Your task to perform on an android device: Open Wikipedia Image 0: 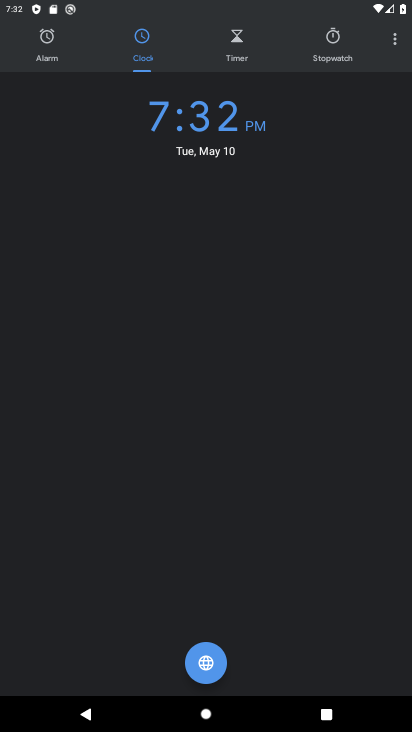
Step 0: press home button
Your task to perform on an android device: Open Wikipedia Image 1: 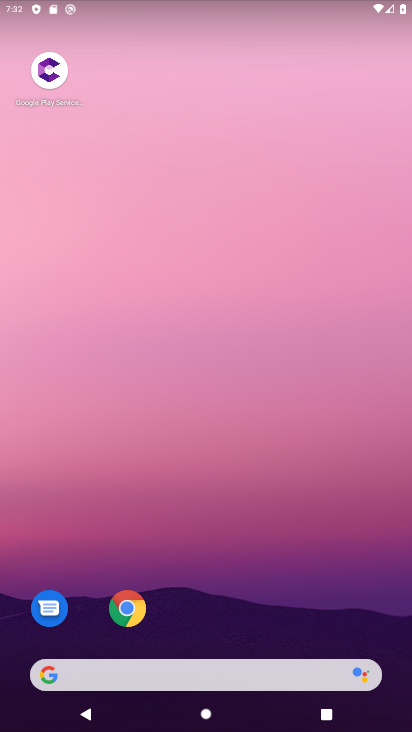
Step 1: drag from (187, 681) to (292, 263)
Your task to perform on an android device: Open Wikipedia Image 2: 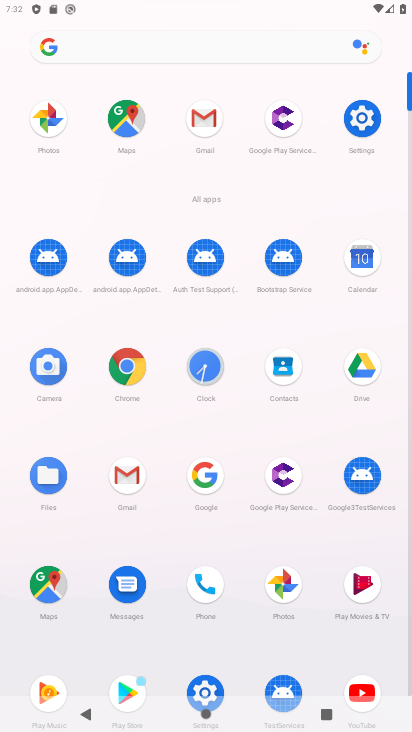
Step 2: click (127, 372)
Your task to perform on an android device: Open Wikipedia Image 3: 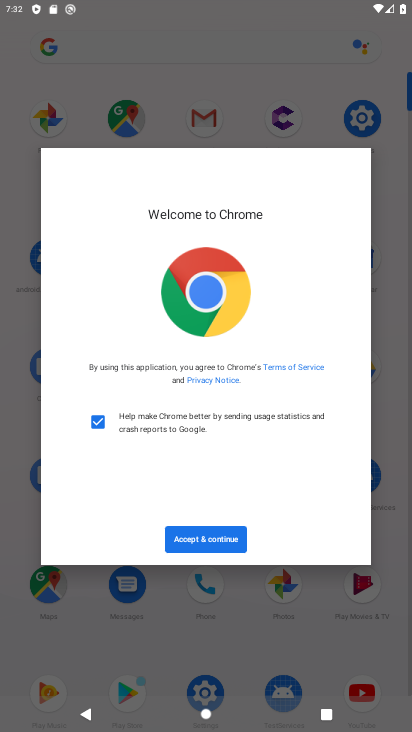
Step 3: click (217, 538)
Your task to perform on an android device: Open Wikipedia Image 4: 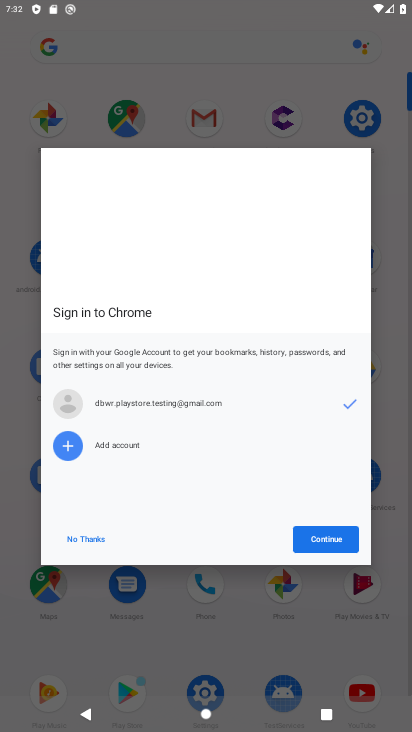
Step 4: click (322, 534)
Your task to perform on an android device: Open Wikipedia Image 5: 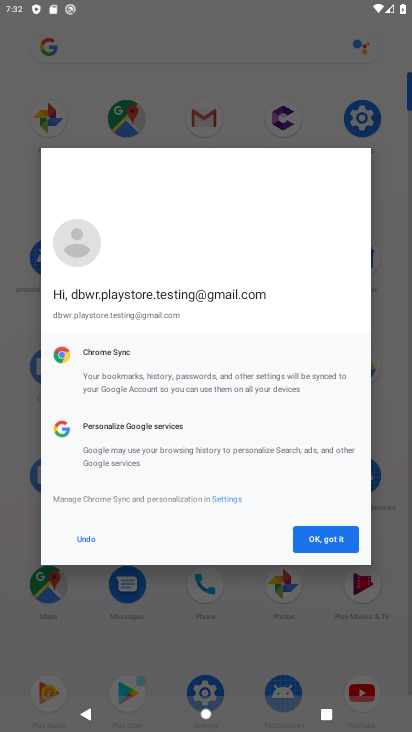
Step 5: click (323, 539)
Your task to perform on an android device: Open Wikipedia Image 6: 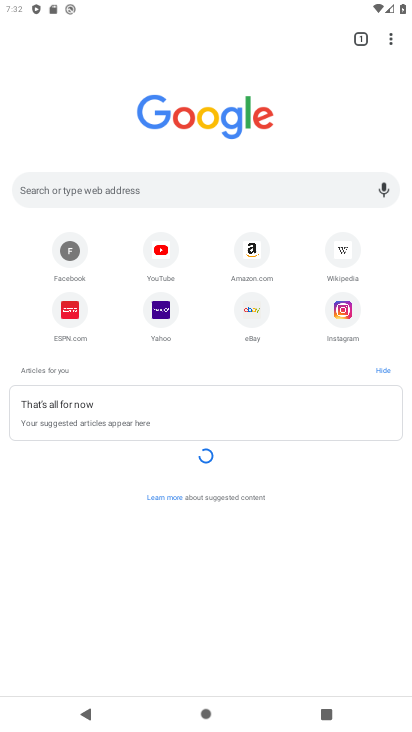
Step 6: click (345, 246)
Your task to perform on an android device: Open Wikipedia Image 7: 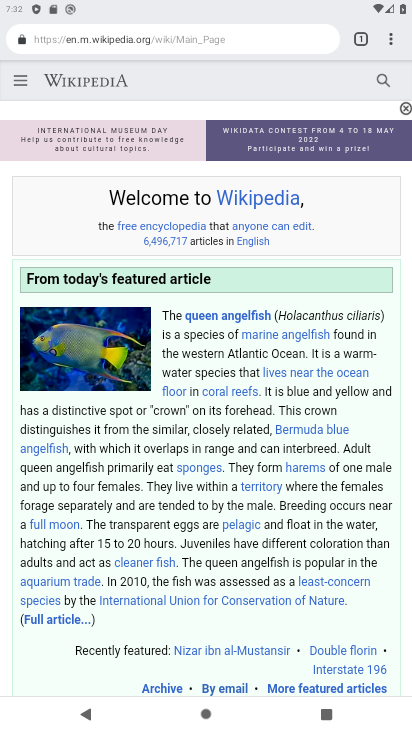
Step 7: task complete